Your task to perform on an android device: Open display settings Image 0: 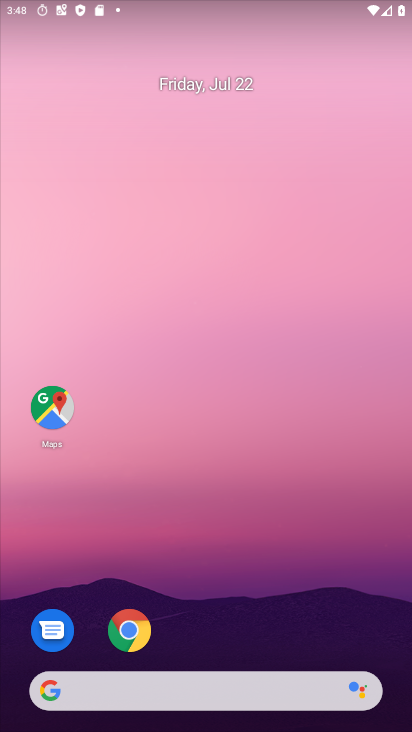
Step 0: drag from (390, 689) to (330, 116)
Your task to perform on an android device: Open display settings Image 1: 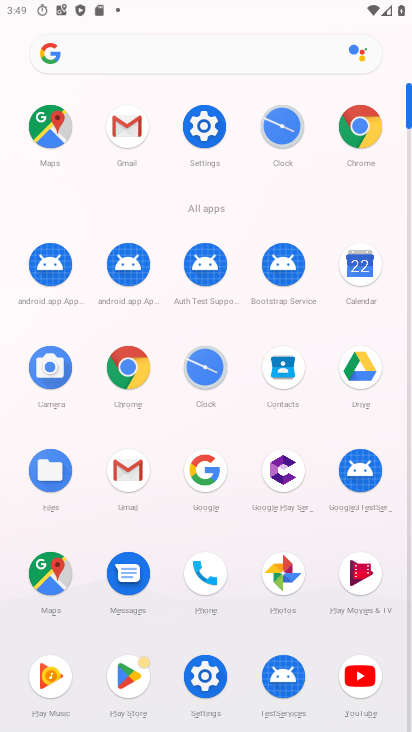
Step 1: click (200, 129)
Your task to perform on an android device: Open display settings Image 2: 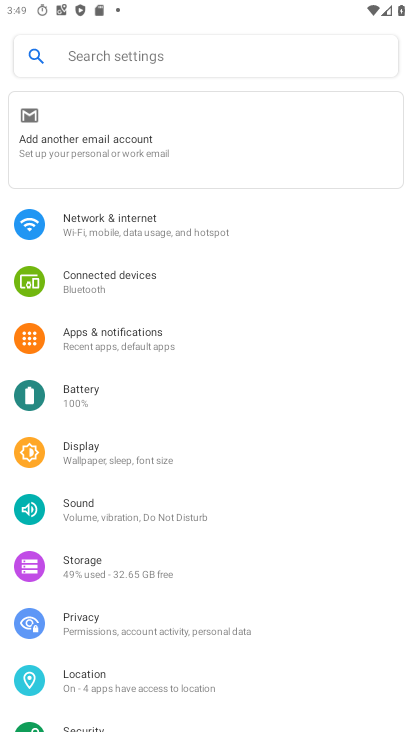
Step 2: click (91, 384)
Your task to perform on an android device: Open display settings Image 3: 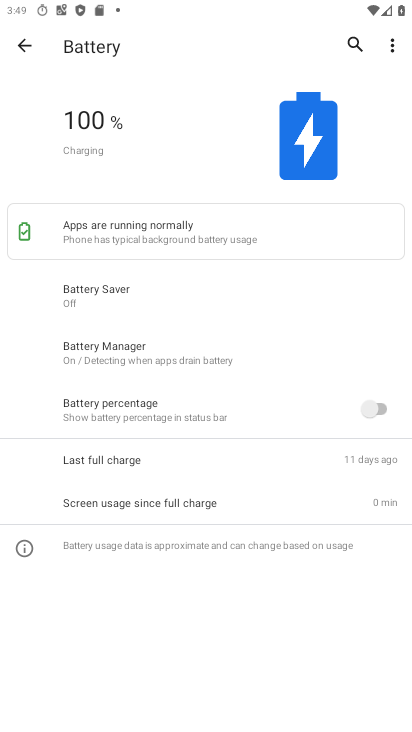
Step 3: press back button
Your task to perform on an android device: Open display settings Image 4: 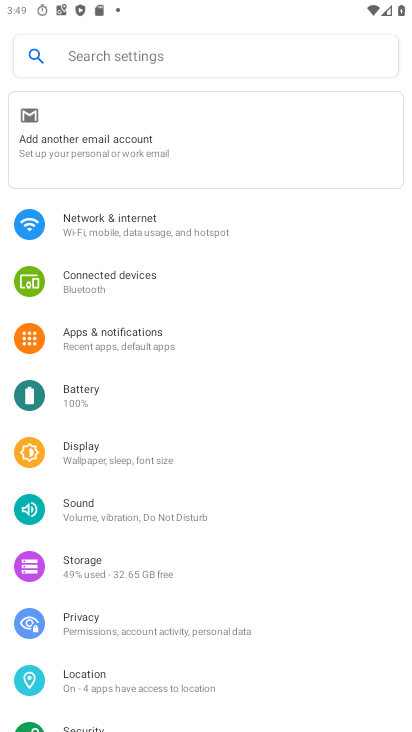
Step 4: drag from (338, 611) to (296, 213)
Your task to perform on an android device: Open display settings Image 5: 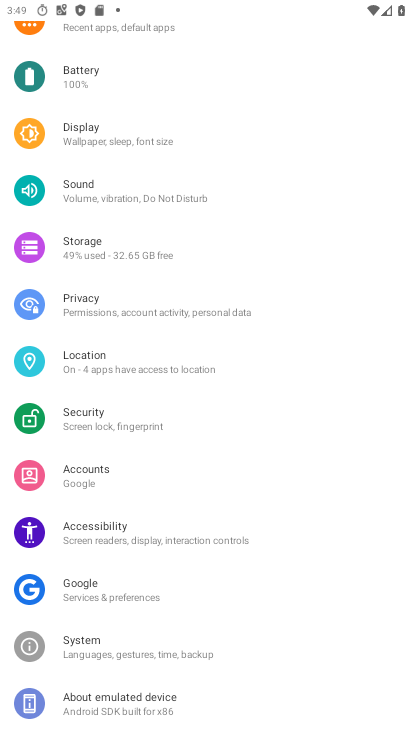
Step 5: click (78, 132)
Your task to perform on an android device: Open display settings Image 6: 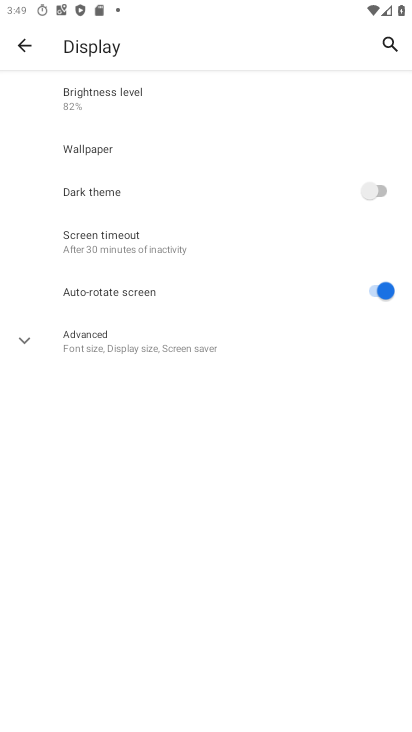
Step 6: task complete